Your task to perform on an android device: Open Maps and search for coffee Image 0: 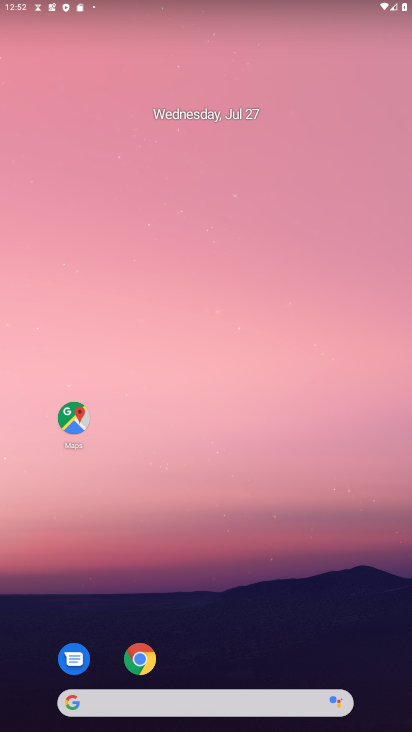
Step 0: press home button
Your task to perform on an android device: Open Maps and search for coffee Image 1: 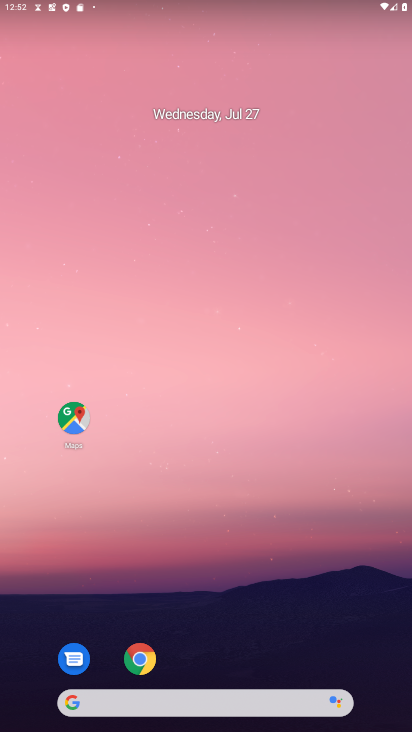
Step 1: click (71, 417)
Your task to perform on an android device: Open Maps and search for coffee Image 2: 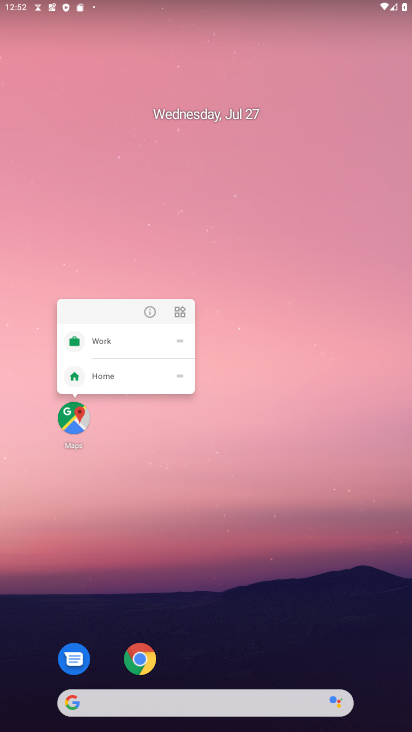
Step 2: click (68, 419)
Your task to perform on an android device: Open Maps and search for coffee Image 3: 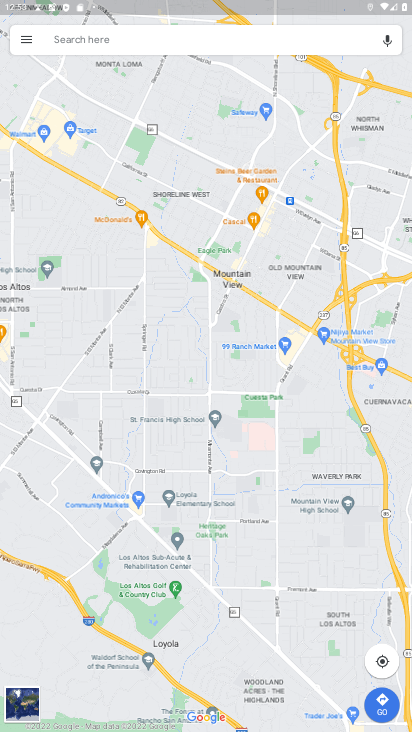
Step 3: click (97, 28)
Your task to perform on an android device: Open Maps and search for coffee Image 4: 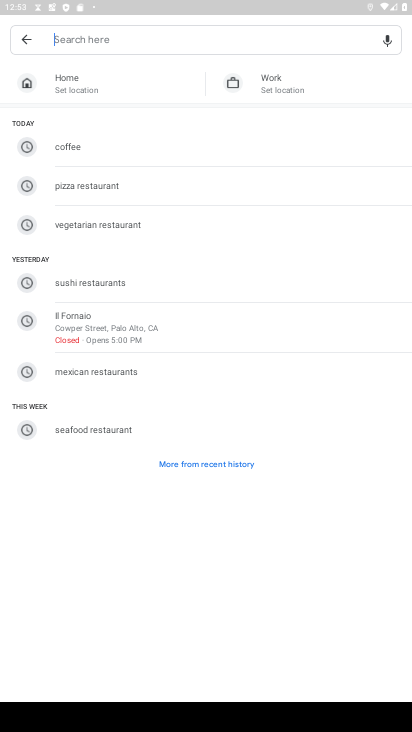
Step 4: type "coffee"
Your task to perform on an android device: Open Maps and search for coffee Image 5: 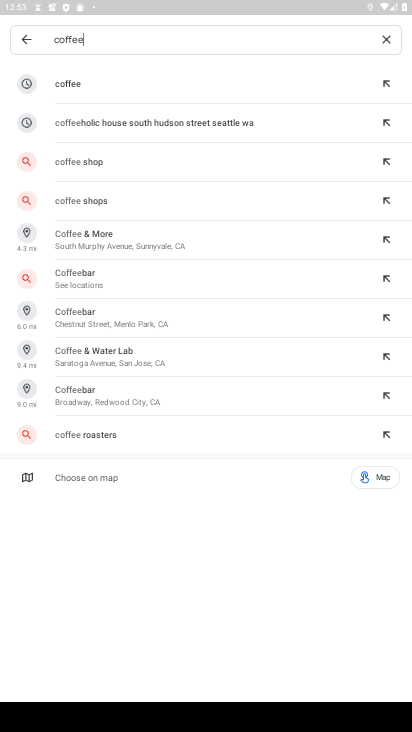
Step 5: click (78, 76)
Your task to perform on an android device: Open Maps and search for coffee Image 6: 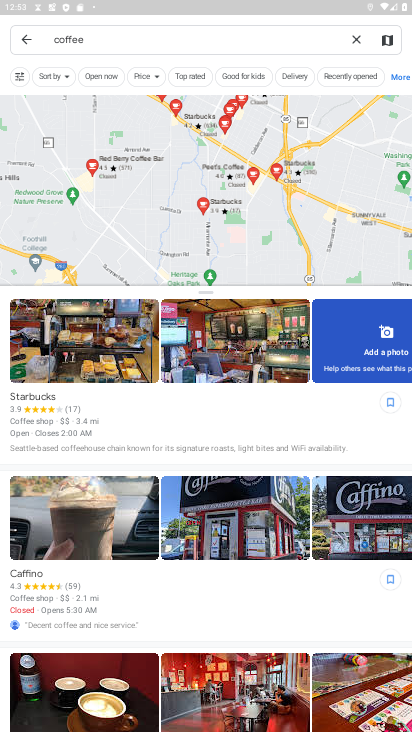
Step 6: task complete